Your task to perform on an android device: set the stopwatch Image 0: 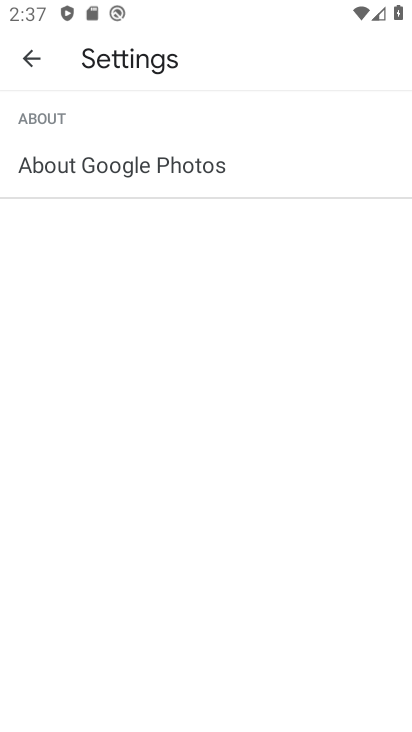
Step 0: press back button
Your task to perform on an android device: set the stopwatch Image 1: 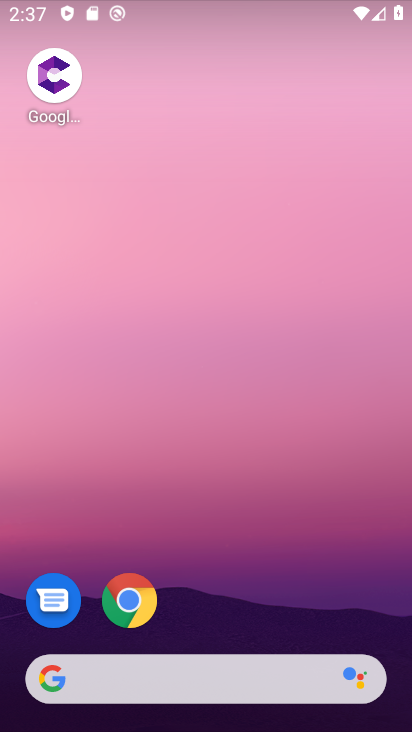
Step 1: drag from (240, 573) to (225, 21)
Your task to perform on an android device: set the stopwatch Image 2: 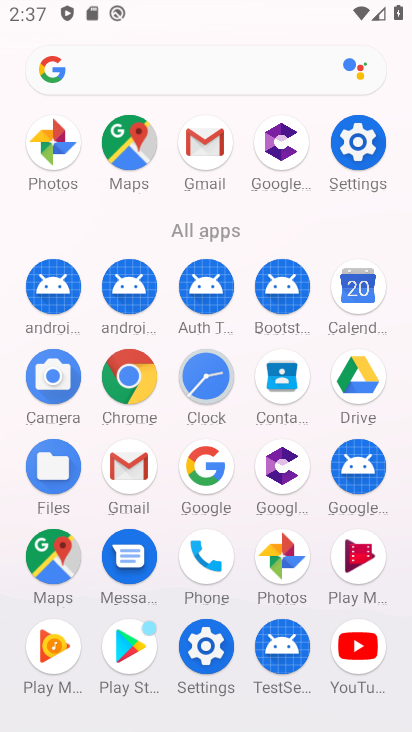
Step 2: drag from (7, 566) to (12, 327)
Your task to perform on an android device: set the stopwatch Image 3: 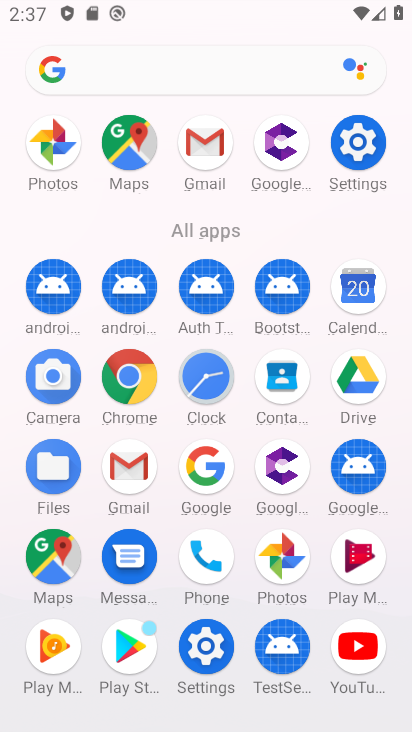
Step 3: click (205, 372)
Your task to perform on an android device: set the stopwatch Image 4: 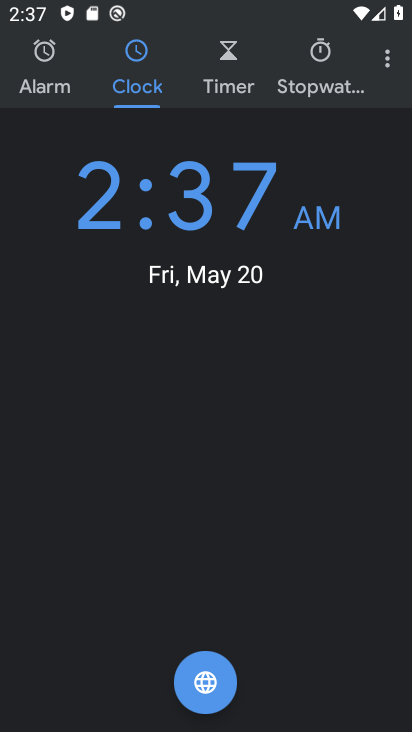
Step 4: click (322, 56)
Your task to perform on an android device: set the stopwatch Image 5: 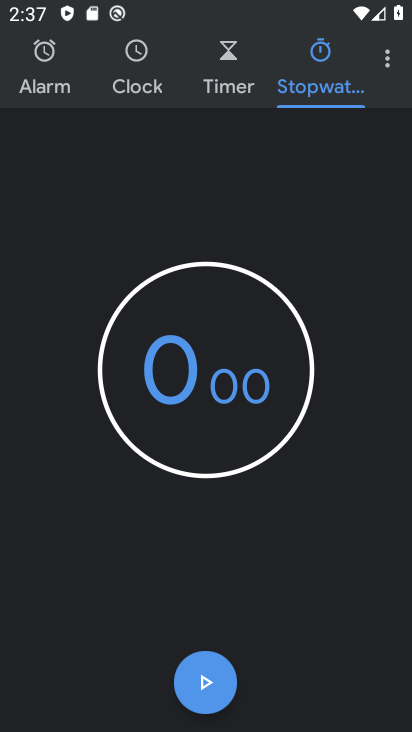
Step 5: click (211, 668)
Your task to perform on an android device: set the stopwatch Image 6: 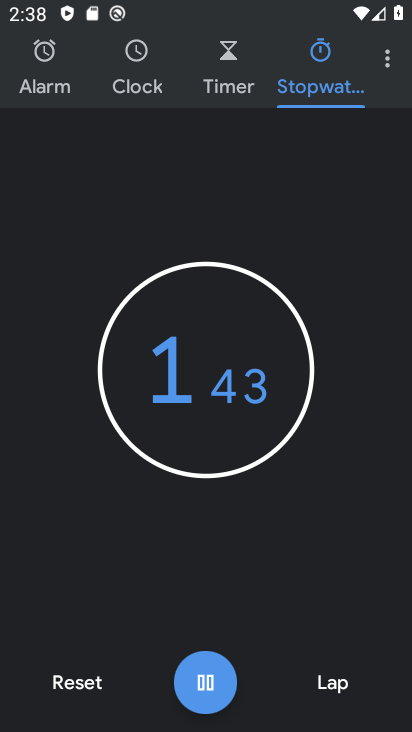
Step 6: task complete